Your task to perform on an android device: Go to Wikipedia Image 0: 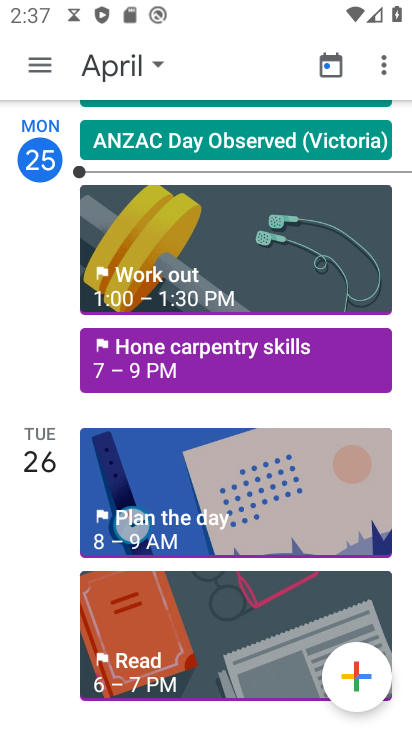
Step 0: press home button
Your task to perform on an android device: Go to Wikipedia Image 1: 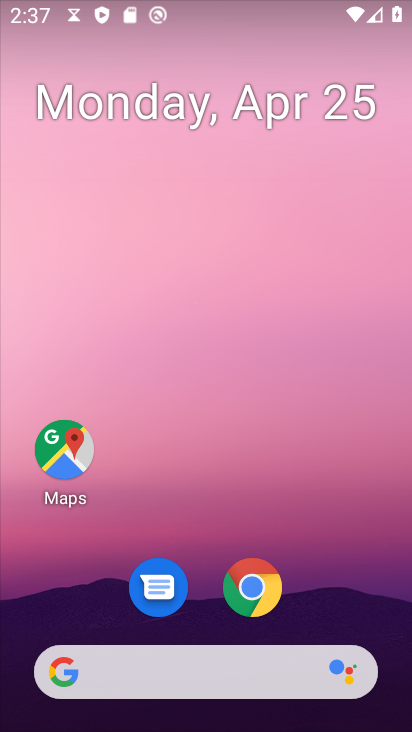
Step 1: click (259, 602)
Your task to perform on an android device: Go to Wikipedia Image 2: 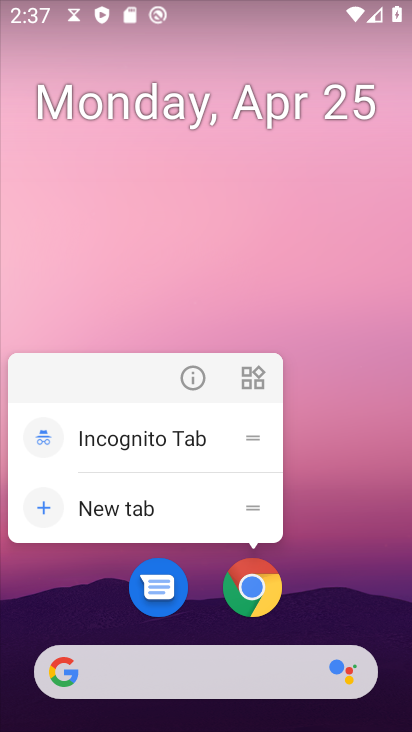
Step 2: click (194, 387)
Your task to perform on an android device: Go to Wikipedia Image 3: 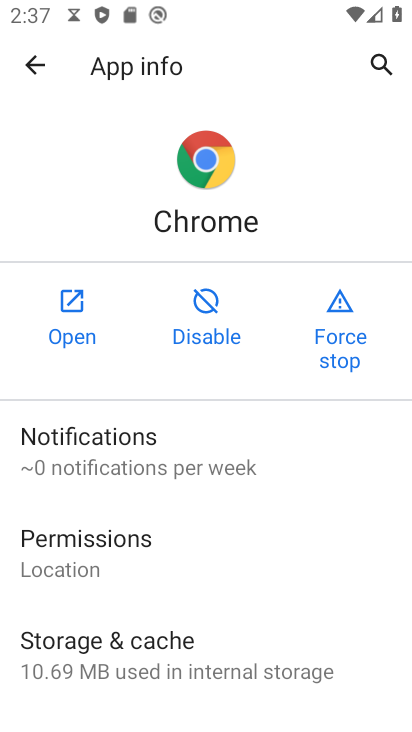
Step 3: click (65, 348)
Your task to perform on an android device: Go to Wikipedia Image 4: 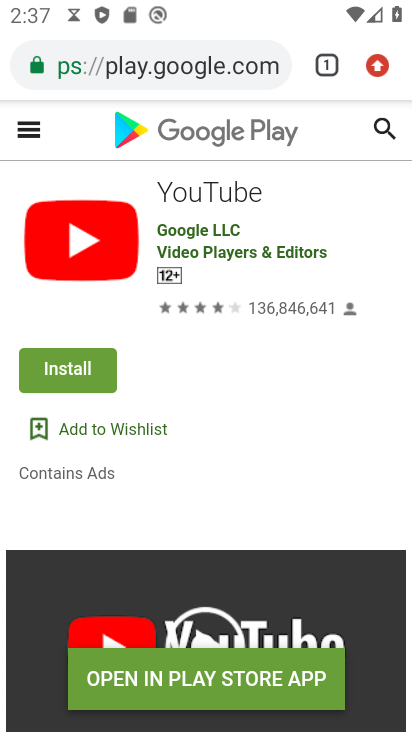
Step 4: click (320, 76)
Your task to perform on an android device: Go to Wikipedia Image 5: 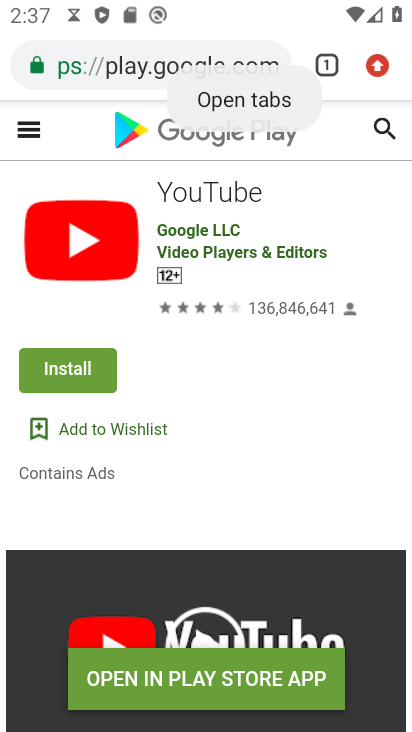
Step 5: click (156, 69)
Your task to perform on an android device: Go to Wikipedia Image 6: 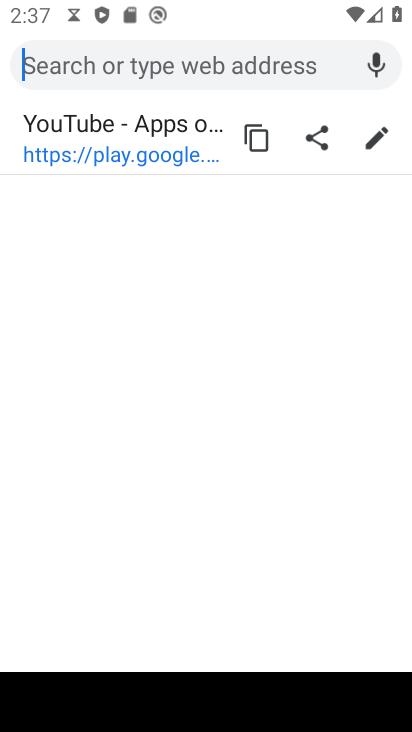
Step 6: type "Wikipedia"
Your task to perform on an android device: Go to Wikipedia Image 7: 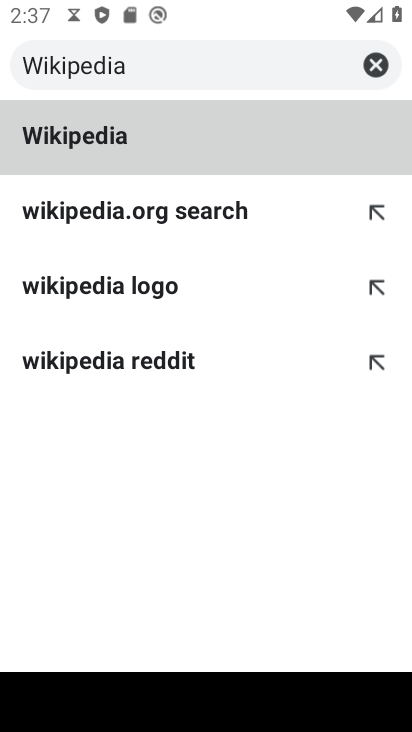
Step 7: click (77, 165)
Your task to perform on an android device: Go to Wikipedia Image 8: 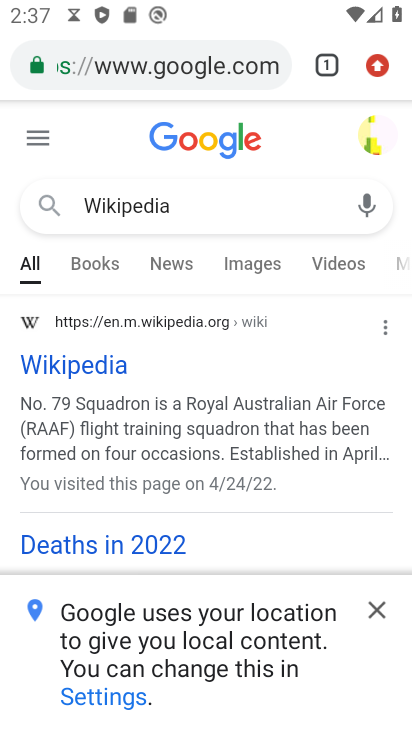
Step 8: click (97, 359)
Your task to perform on an android device: Go to Wikipedia Image 9: 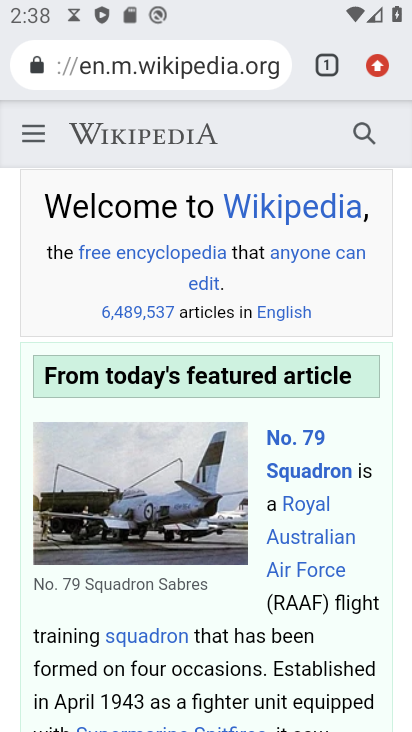
Step 9: task complete